Your task to perform on an android device: Go to sound settings Image 0: 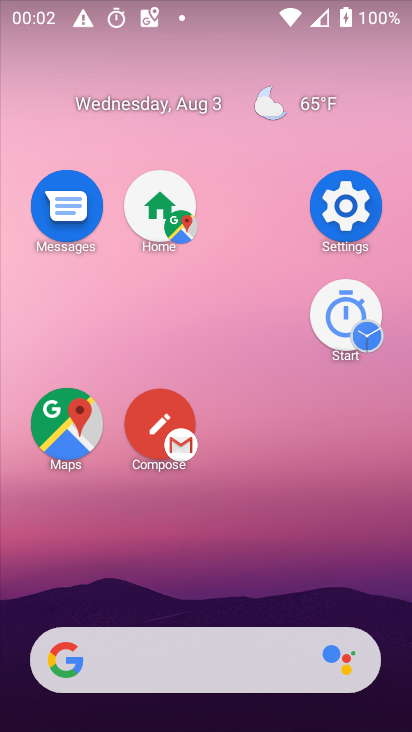
Step 0: drag from (235, 680) to (143, 6)
Your task to perform on an android device: Go to sound settings Image 1: 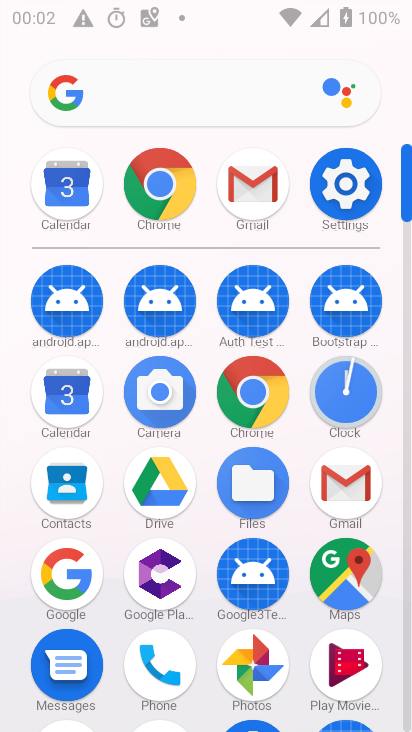
Step 1: drag from (315, 511) to (242, 0)
Your task to perform on an android device: Go to sound settings Image 2: 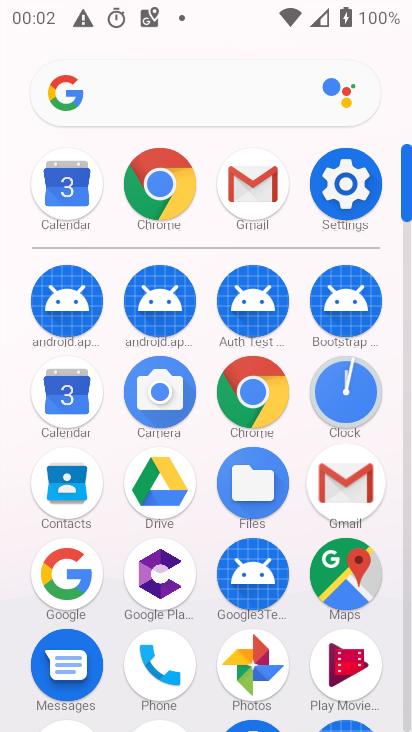
Step 2: drag from (291, 369) to (184, 5)
Your task to perform on an android device: Go to sound settings Image 3: 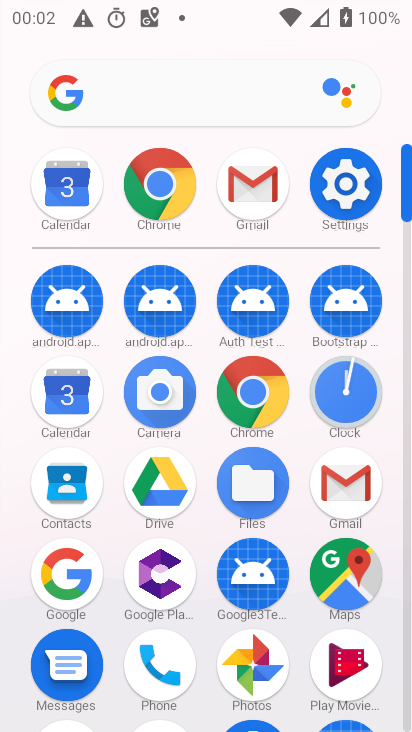
Step 3: click (345, 175)
Your task to perform on an android device: Go to sound settings Image 4: 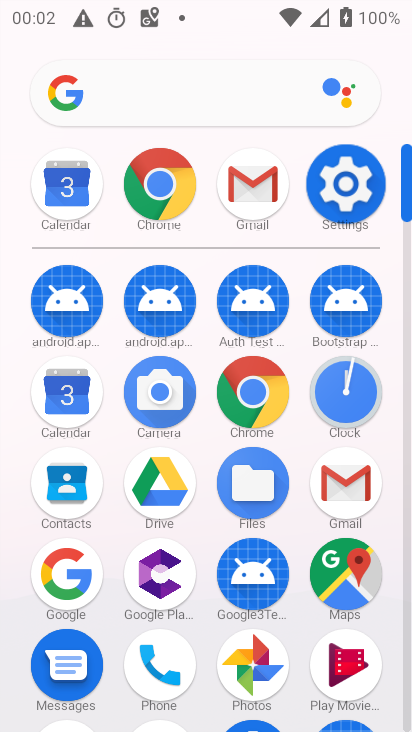
Step 4: click (344, 178)
Your task to perform on an android device: Go to sound settings Image 5: 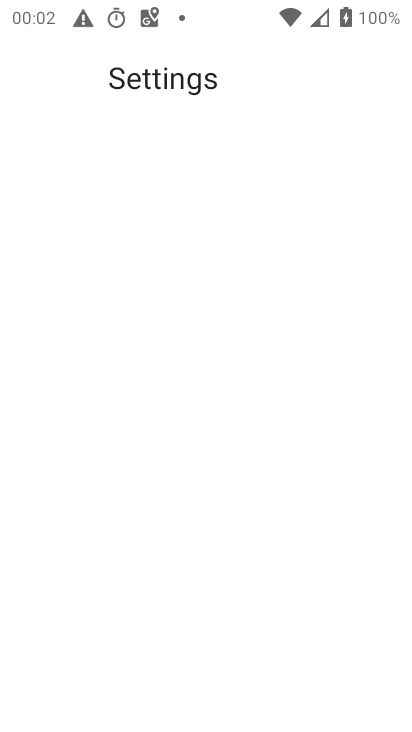
Step 5: click (344, 178)
Your task to perform on an android device: Go to sound settings Image 6: 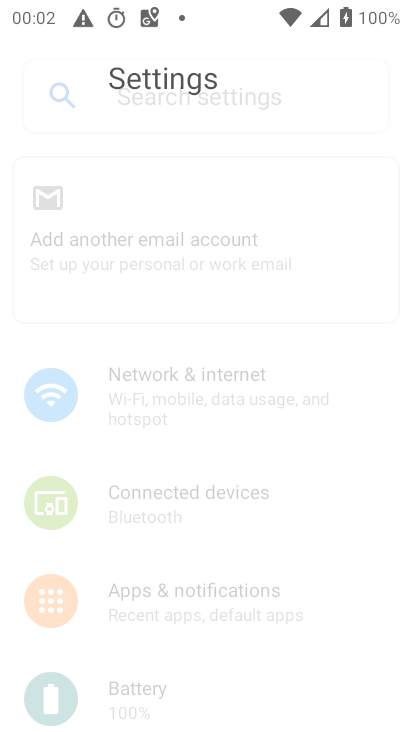
Step 6: click (344, 176)
Your task to perform on an android device: Go to sound settings Image 7: 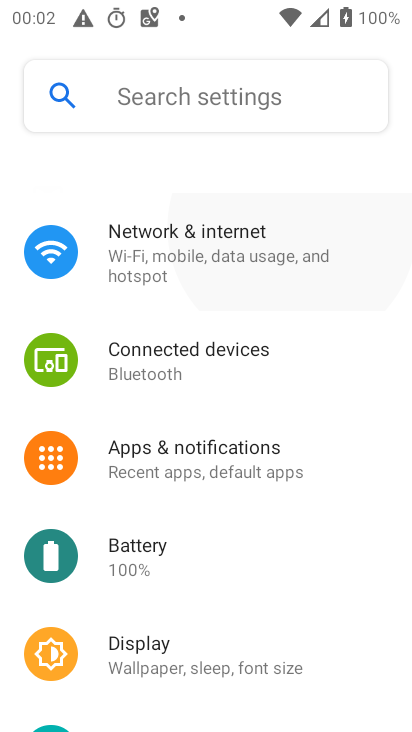
Step 7: click (344, 176)
Your task to perform on an android device: Go to sound settings Image 8: 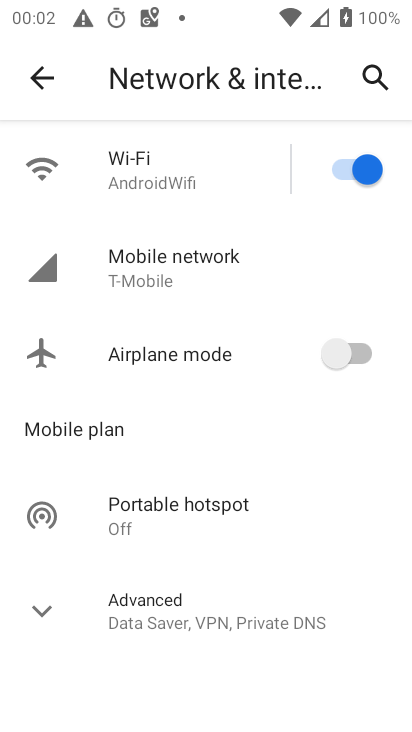
Step 8: click (42, 70)
Your task to perform on an android device: Go to sound settings Image 9: 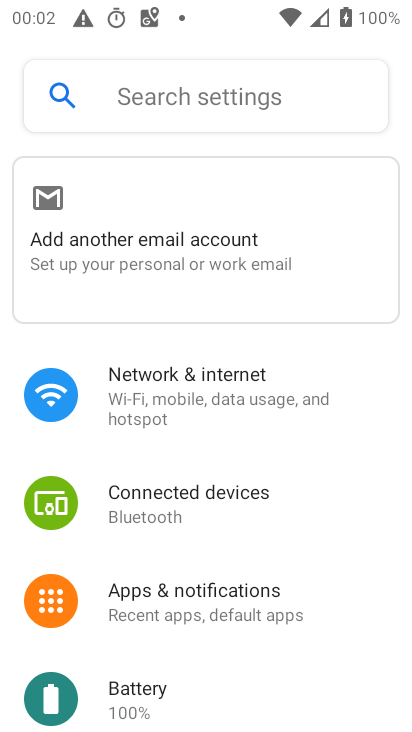
Step 9: drag from (217, 629) to (230, 362)
Your task to perform on an android device: Go to sound settings Image 10: 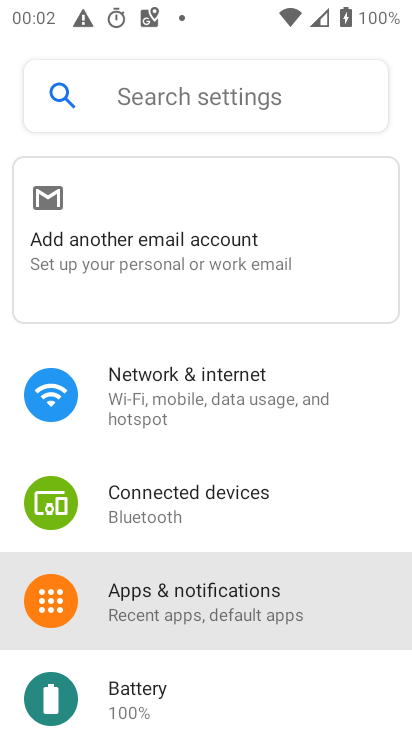
Step 10: drag from (184, 589) to (165, 369)
Your task to perform on an android device: Go to sound settings Image 11: 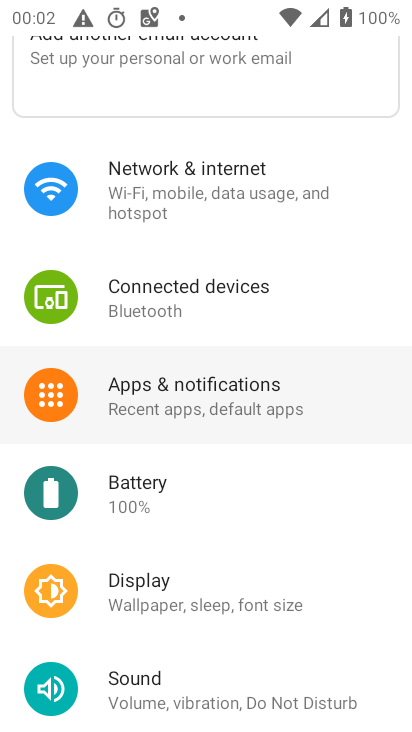
Step 11: drag from (182, 566) to (181, 406)
Your task to perform on an android device: Go to sound settings Image 12: 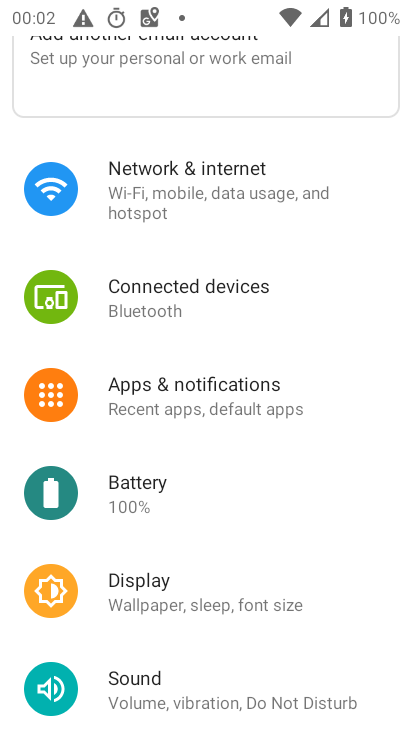
Step 12: click (145, 680)
Your task to perform on an android device: Go to sound settings Image 13: 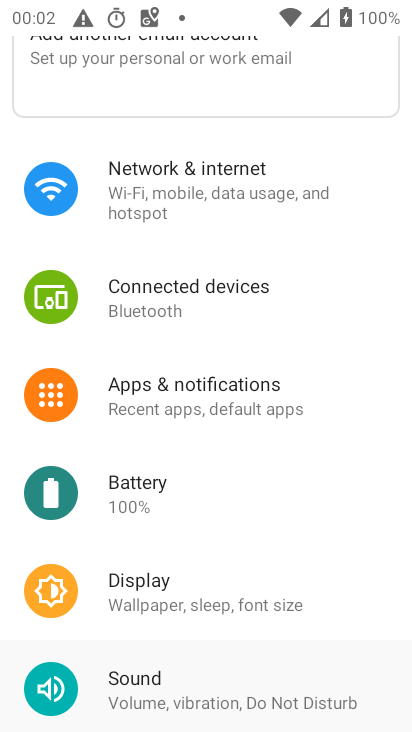
Step 13: click (145, 679)
Your task to perform on an android device: Go to sound settings Image 14: 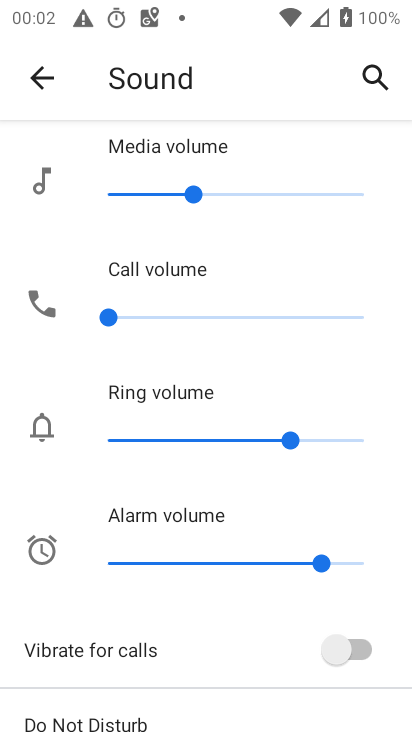
Step 14: task complete